Your task to perform on an android device: Toggle the flashlight Image 0: 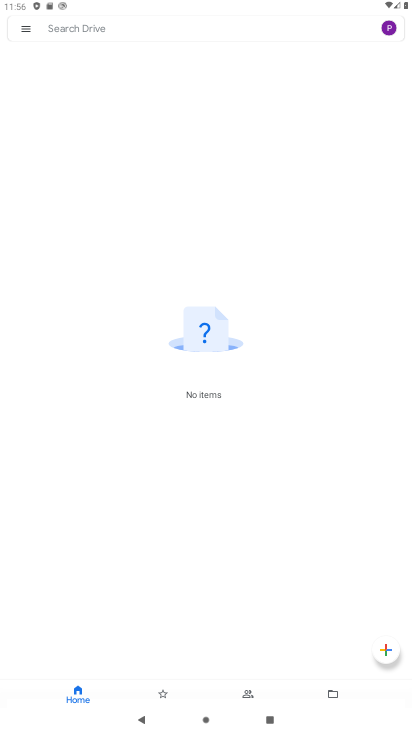
Step 0: drag from (307, 0) to (324, 521)
Your task to perform on an android device: Toggle the flashlight Image 1: 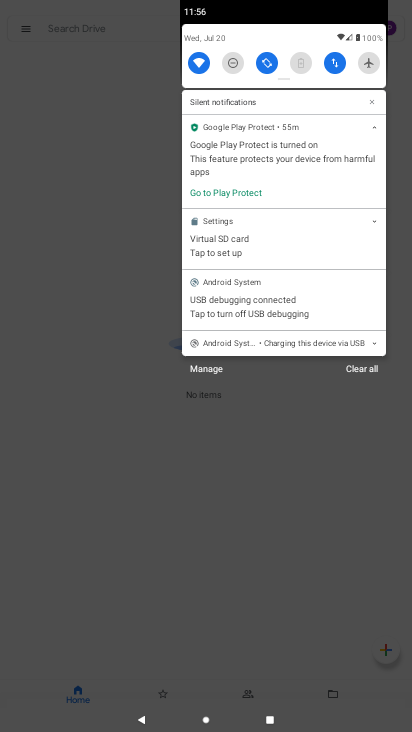
Step 1: task complete